Your task to perform on an android device: open app "Booking.com: Hotels and more" Image 0: 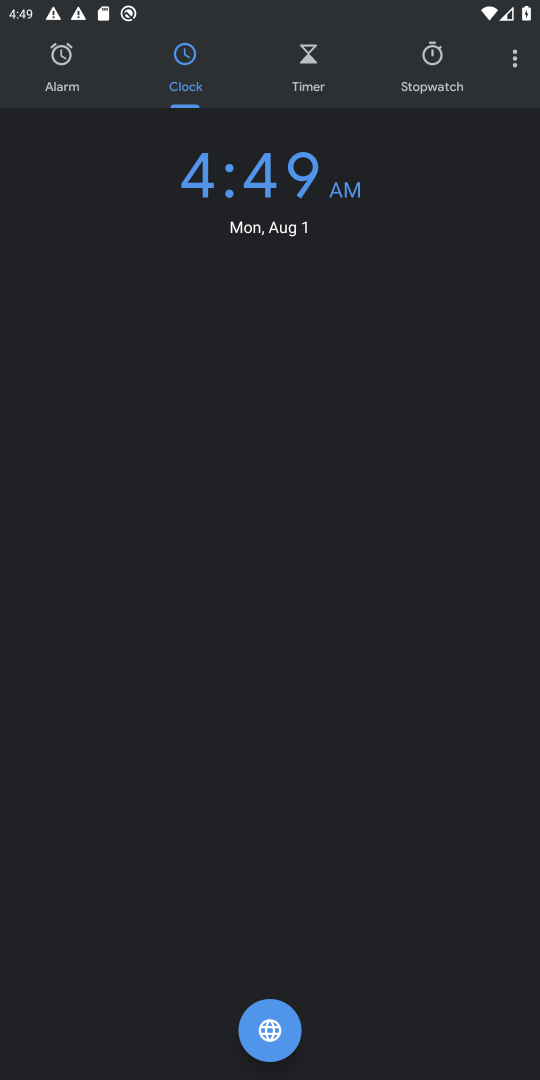
Step 0: press home button
Your task to perform on an android device: open app "Booking.com: Hotels and more" Image 1: 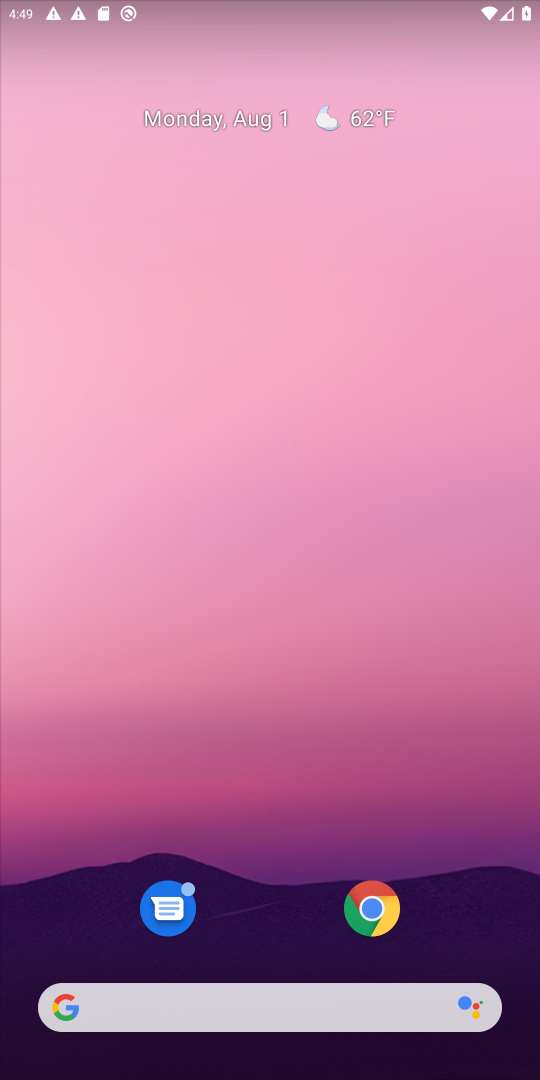
Step 1: drag from (239, 883) to (239, 375)
Your task to perform on an android device: open app "Booking.com: Hotels and more" Image 2: 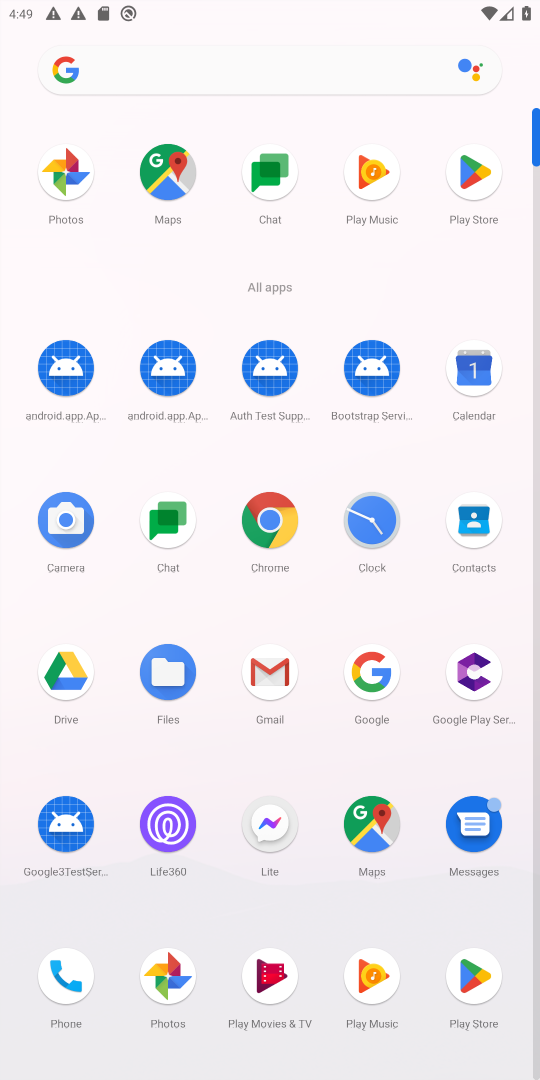
Step 2: click (464, 194)
Your task to perform on an android device: open app "Booking.com: Hotels and more" Image 3: 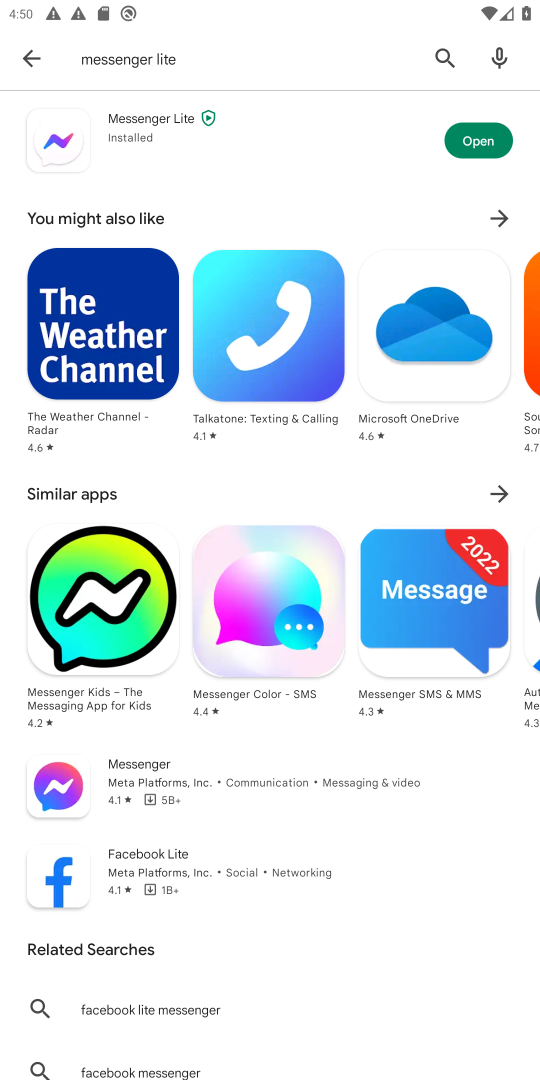
Step 3: type "Booking.com: Hotels and more"
Your task to perform on an android device: open app "Booking.com: Hotels and more" Image 4: 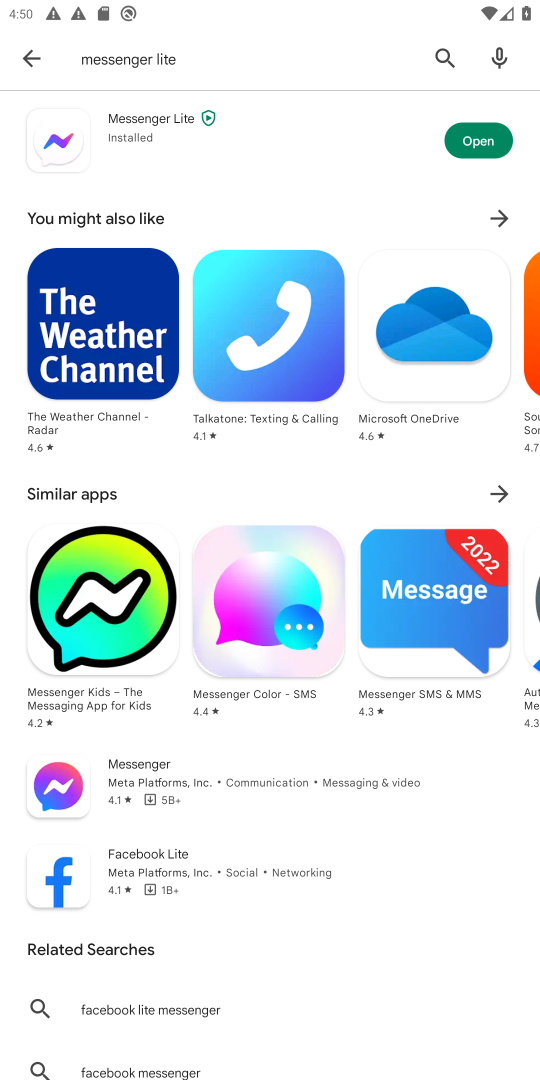
Step 4: click (23, 79)
Your task to perform on an android device: open app "Booking.com: Hotels and more" Image 5: 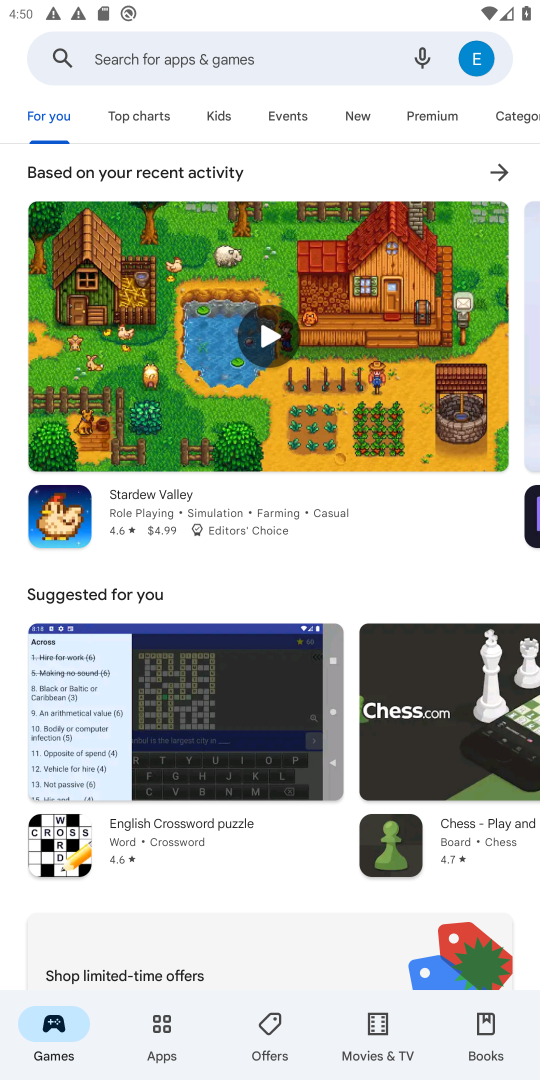
Step 5: click (175, 62)
Your task to perform on an android device: open app "Booking.com: Hotels and more" Image 6: 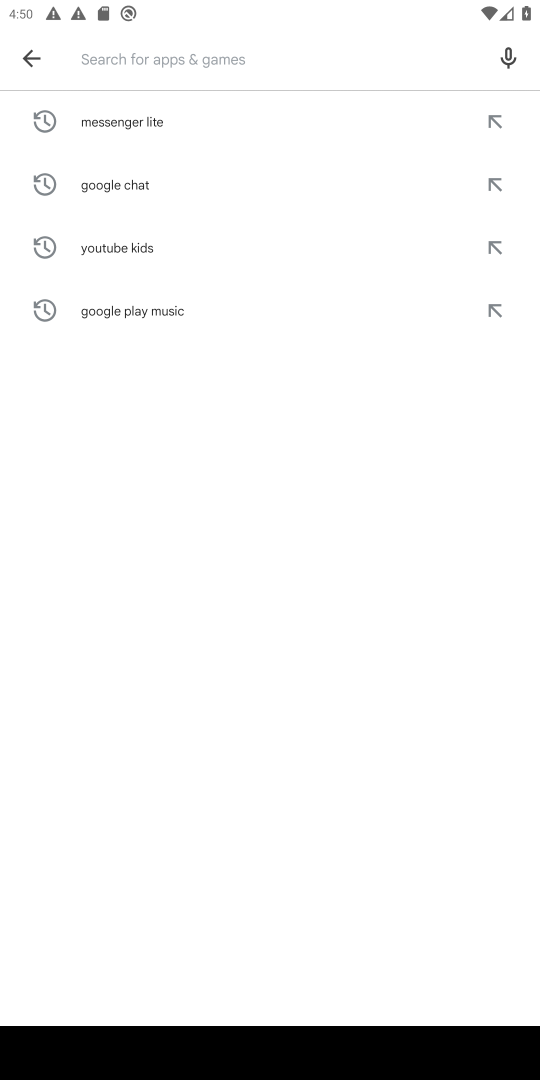
Step 6: type "Booking.com: Hotels and more"
Your task to perform on an android device: open app "Booking.com: Hotels and more" Image 7: 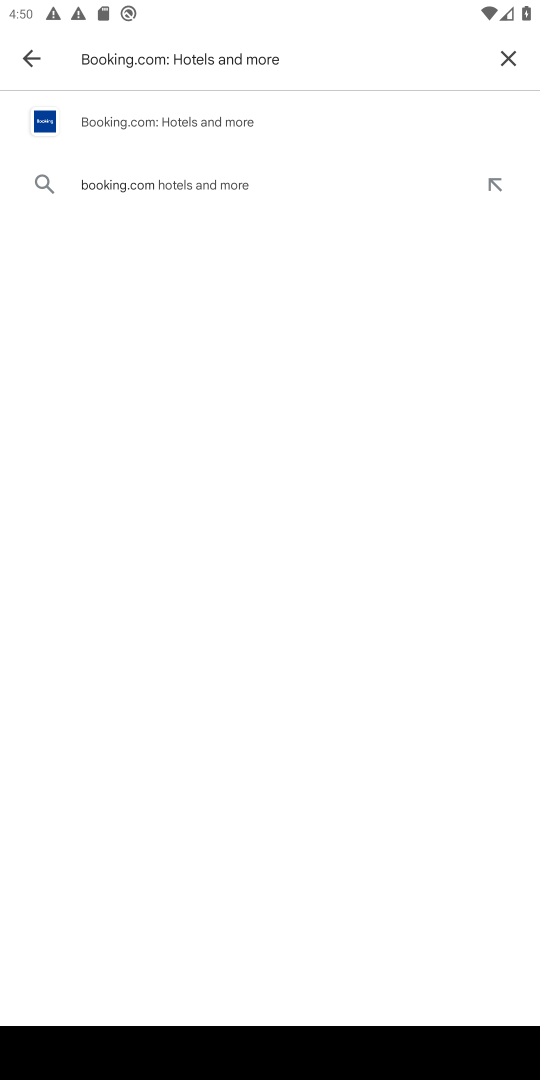
Step 7: click (147, 137)
Your task to perform on an android device: open app "Booking.com: Hotels and more" Image 8: 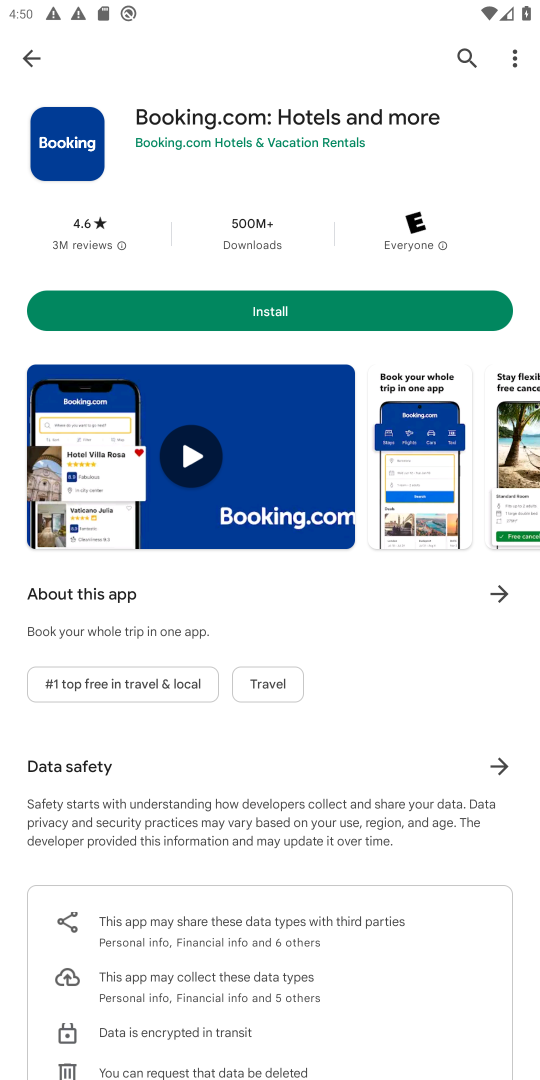
Step 8: click (280, 303)
Your task to perform on an android device: open app "Booking.com: Hotels and more" Image 9: 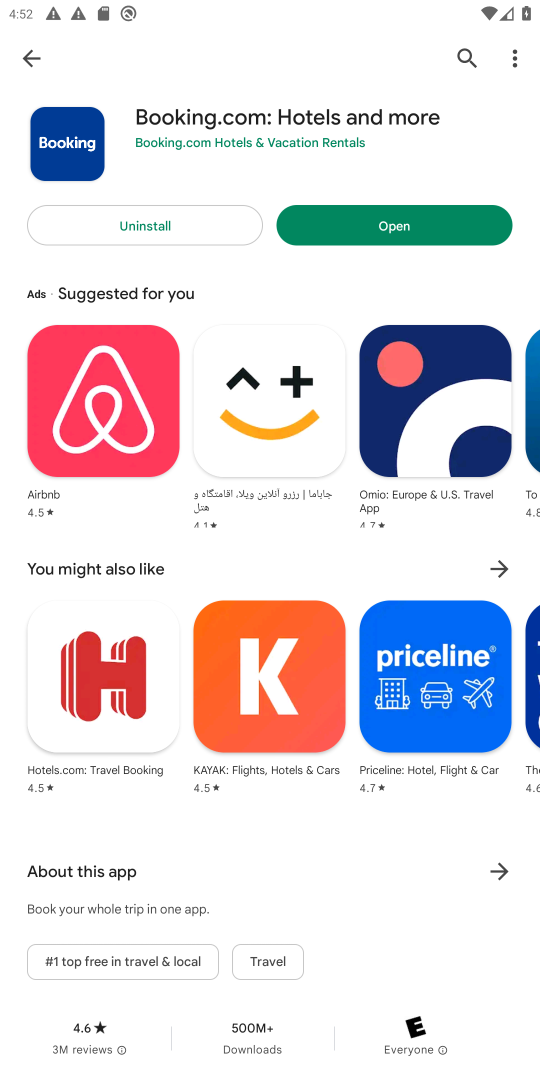
Step 9: click (411, 265)
Your task to perform on an android device: open app "Booking.com: Hotels and more" Image 10: 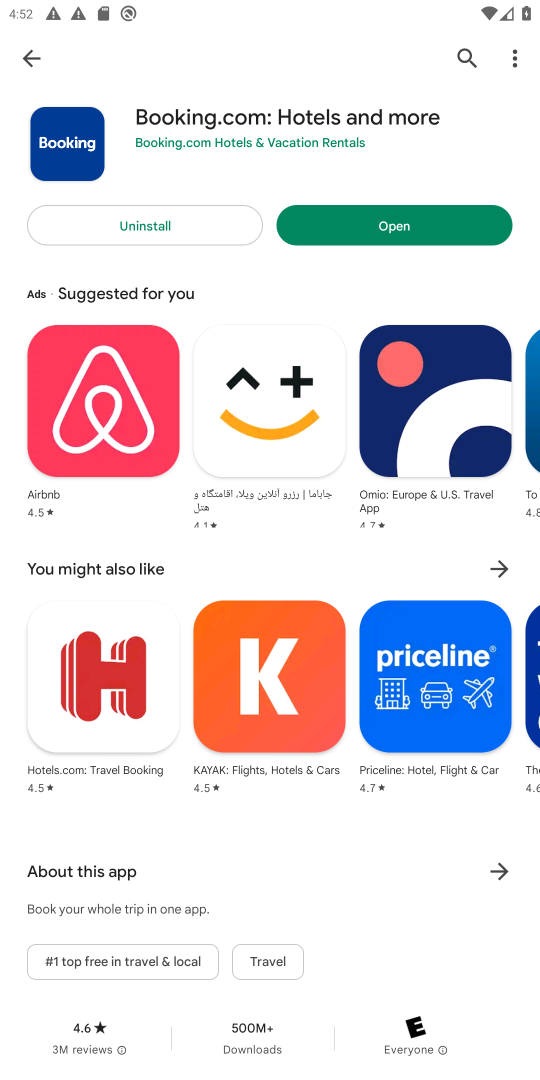
Step 10: click (416, 248)
Your task to perform on an android device: open app "Booking.com: Hotels and more" Image 11: 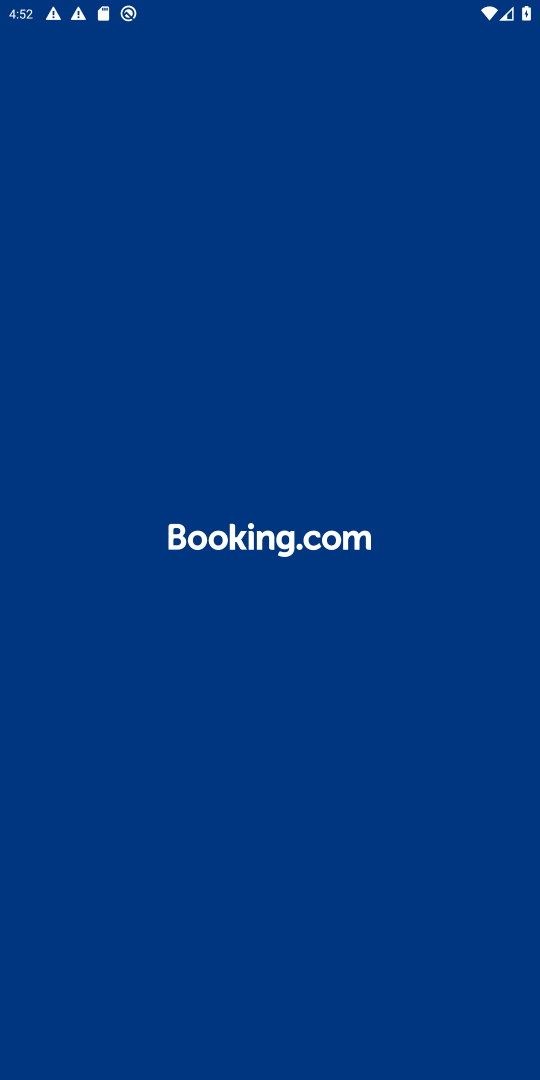
Step 11: task complete